Your task to perform on an android device: Open notification settings Image 0: 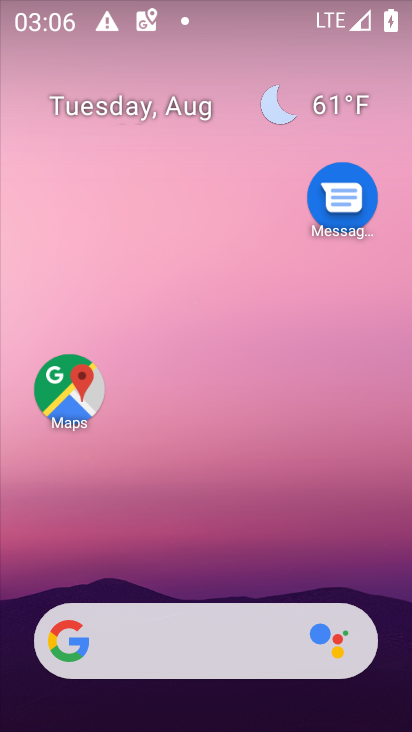
Step 0: drag from (237, 585) to (239, 39)
Your task to perform on an android device: Open notification settings Image 1: 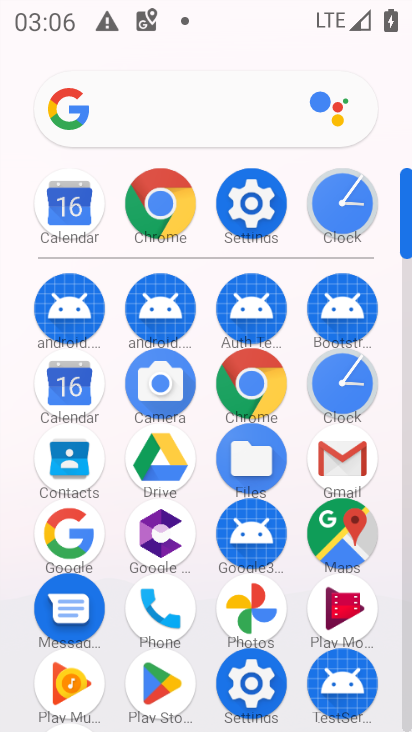
Step 1: click (249, 191)
Your task to perform on an android device: Open notification settings Image 2: 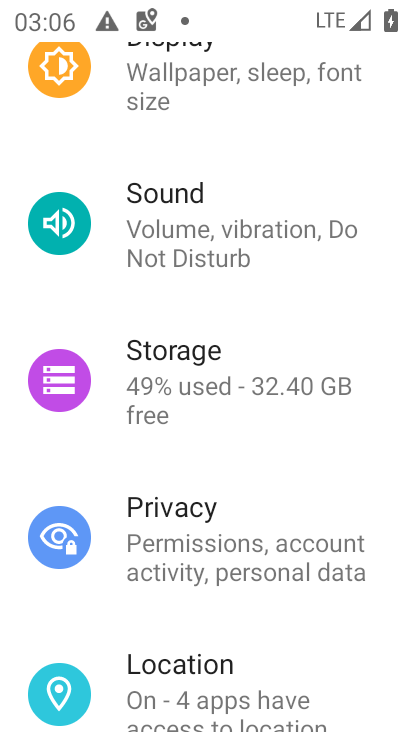
Step 2: drag from (222, 114) to (206, 602)
Your task to perform on an android device: Open notification settings Image 3: 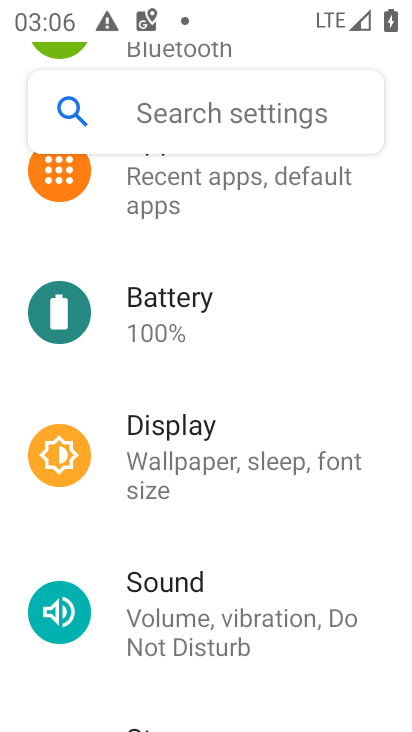
Step 3: drag from (196, 298) to (216, 673)
Your task to perform on an android device: Open notification settings Image 4: 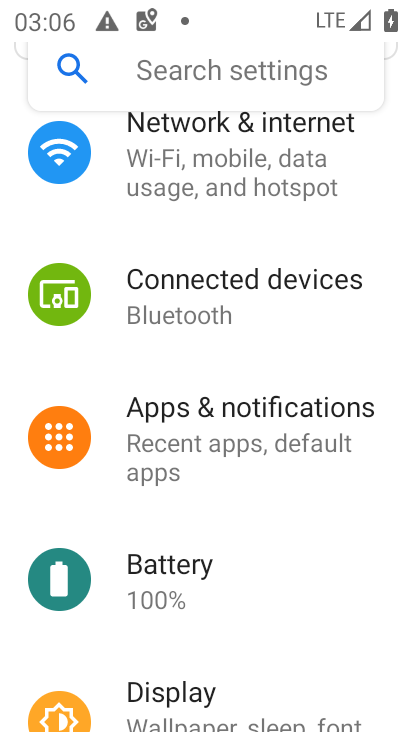
Step 4: click (215, 533)
Your task to perform on an android device: Open notification settings Image 5: 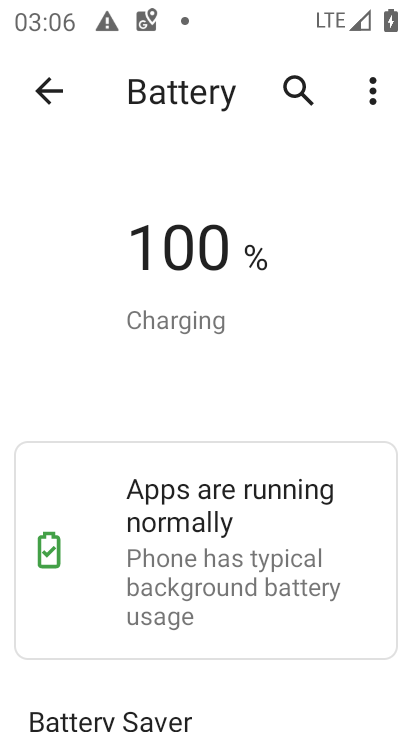
Step 5: click (20, 91)
Your task to perform on an android device: Open notification settings Image 6: 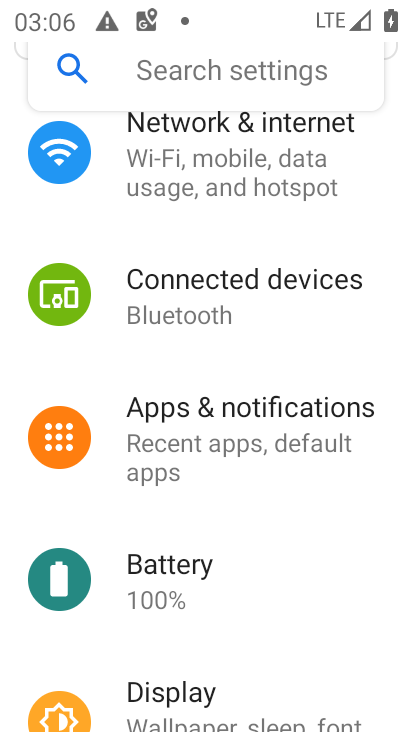
Step 6: click (185, 435)
Your task to perform on an android device: Open notification settings Image 7: 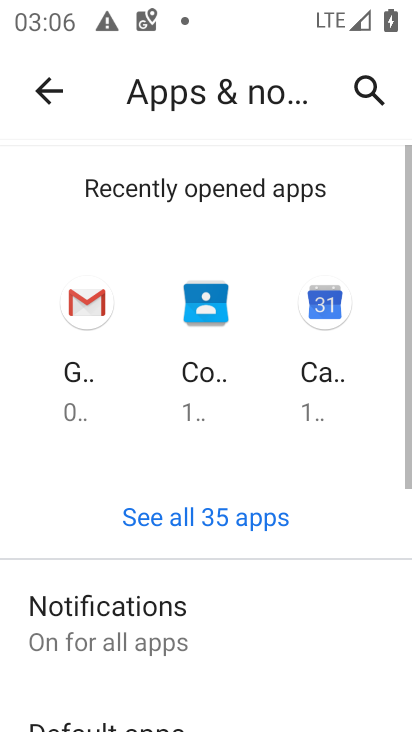
Step 7: task complete